Your task to perform on an android device: See recent photos Image 0: 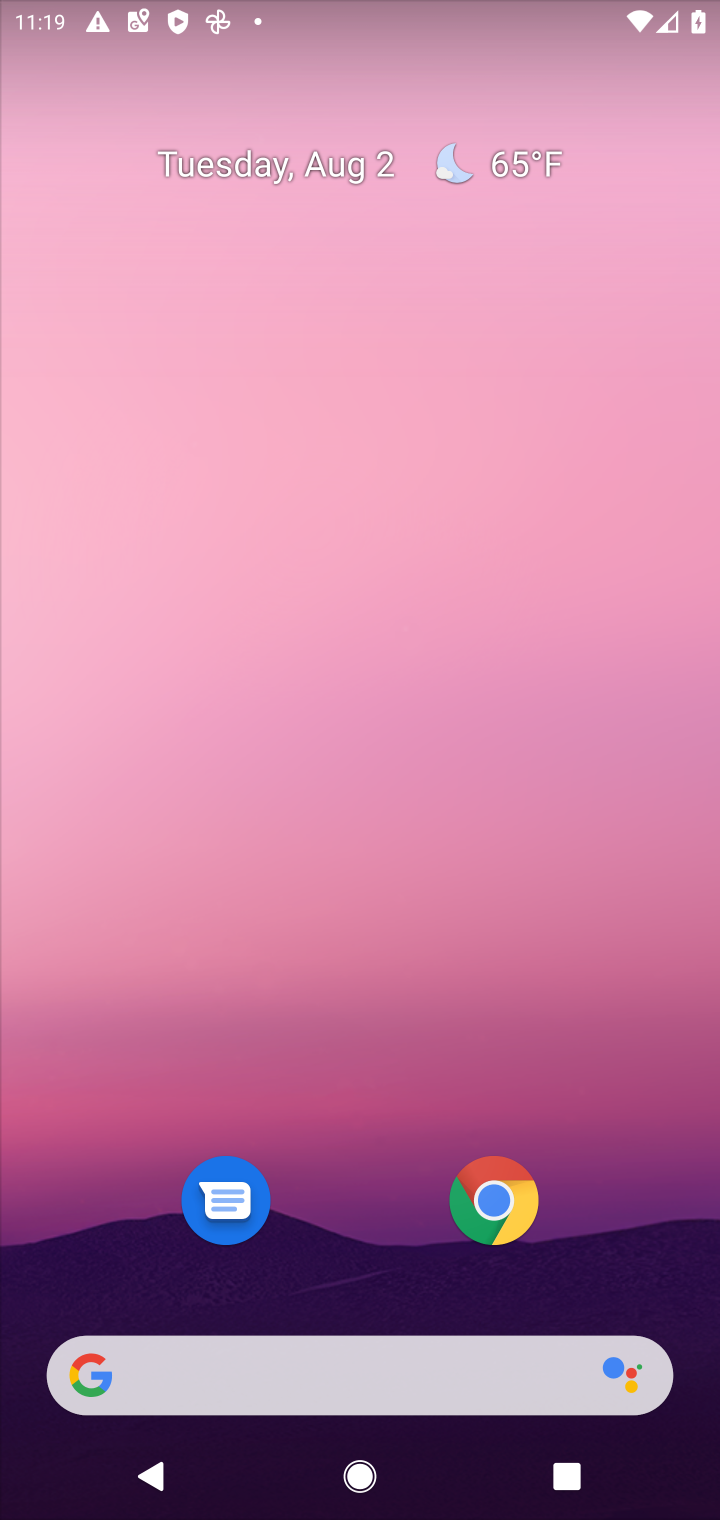
Step 0: drag from (660, 1295) to (538, 340)
Your task to perform on an android device: See recent photos Image 1: 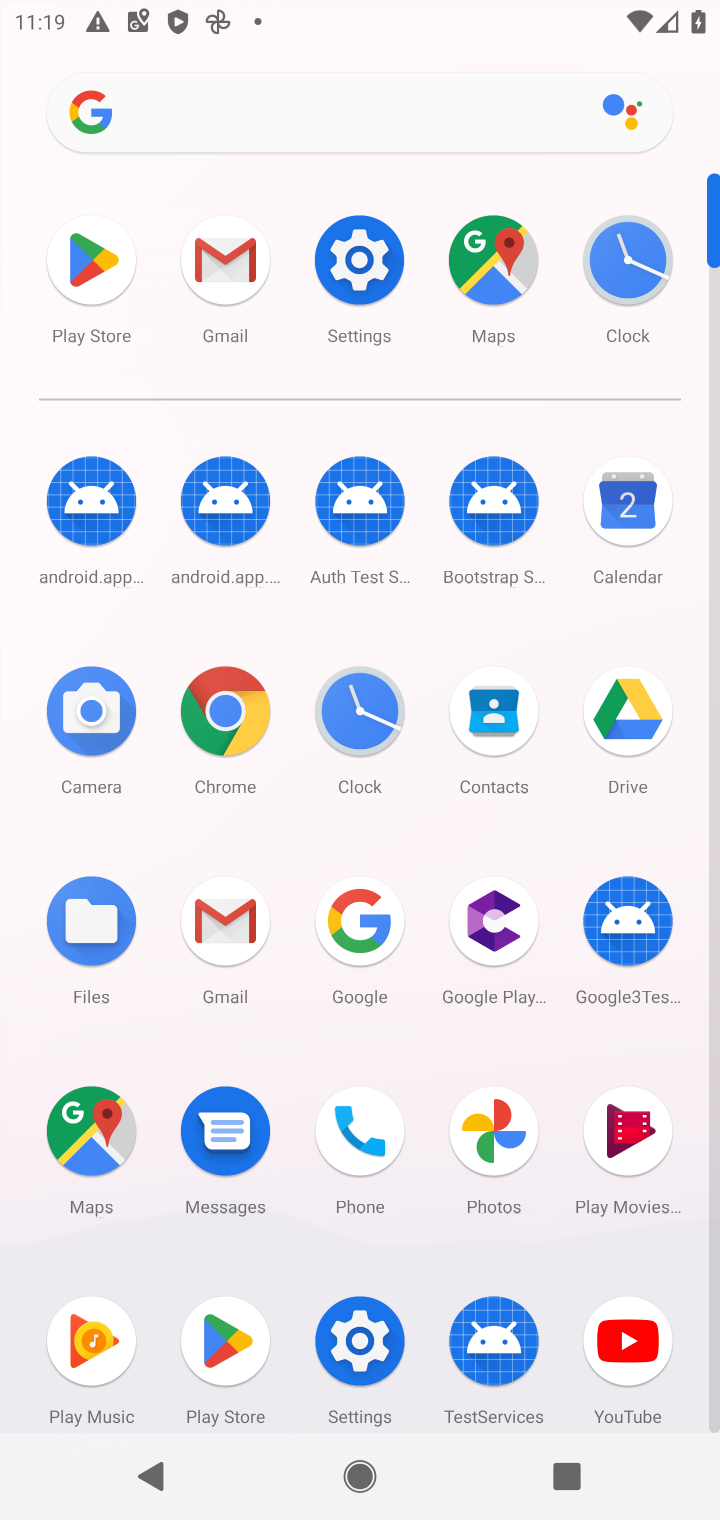
Step 1: click (499, 1122)
Your task to perform on an android device: See recent photos Image 2: 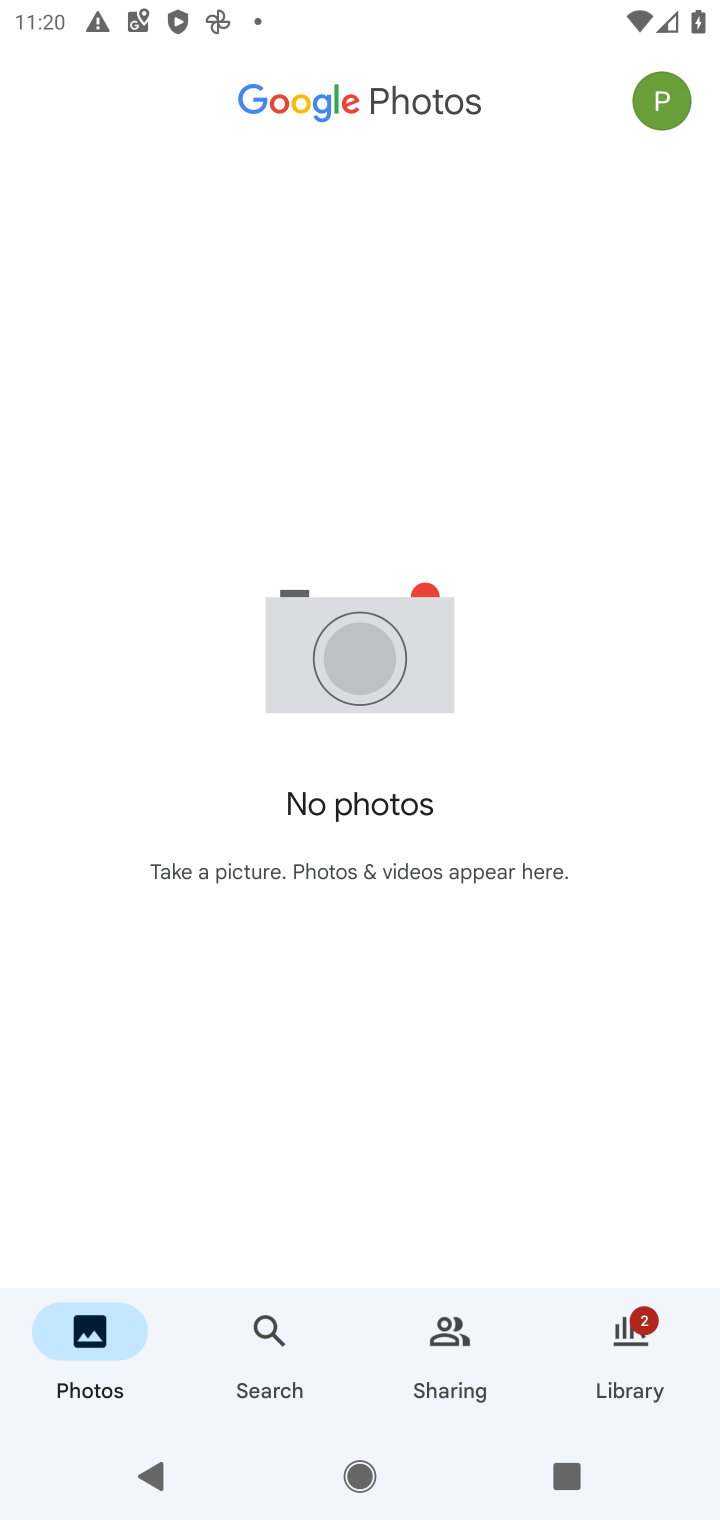
Step 2: task complete